Your task to perform on an android device: Toggle the flashlight Image 0: 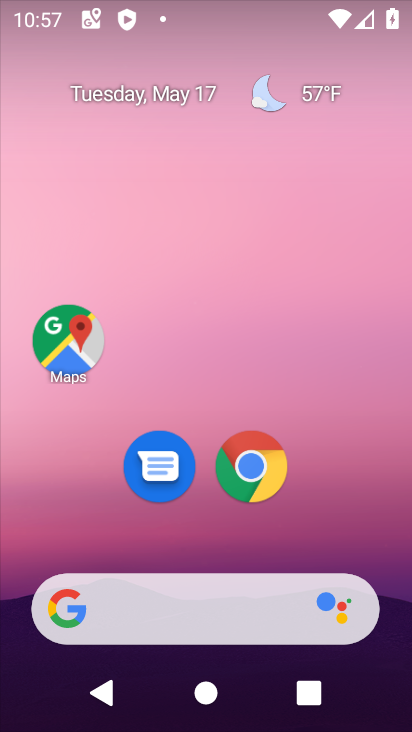
Step 0: drag from (227, 564) to (228, 0)
Your task to perform on an android device: Toggle the flashlight Image 1: 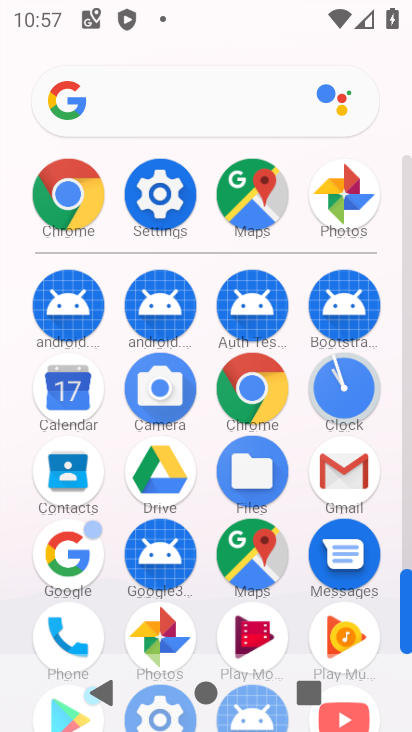
Step 1: click (164, 181)
Your task to perform on an android device: Toggle the flashlight Image 2: 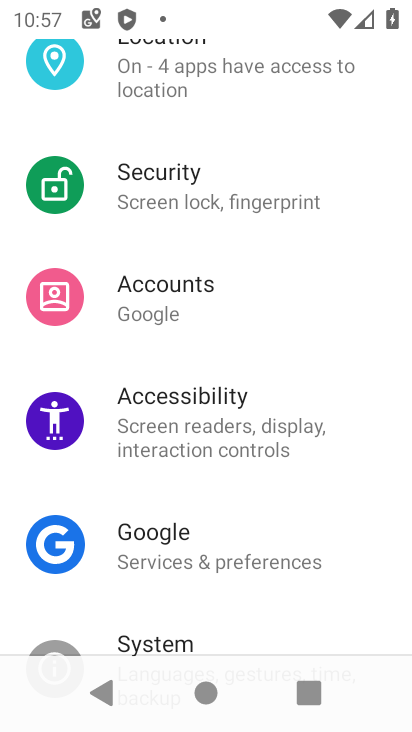
Step 2: task complete